Your task to perform on an android device: change alarm snooze length Image 0: 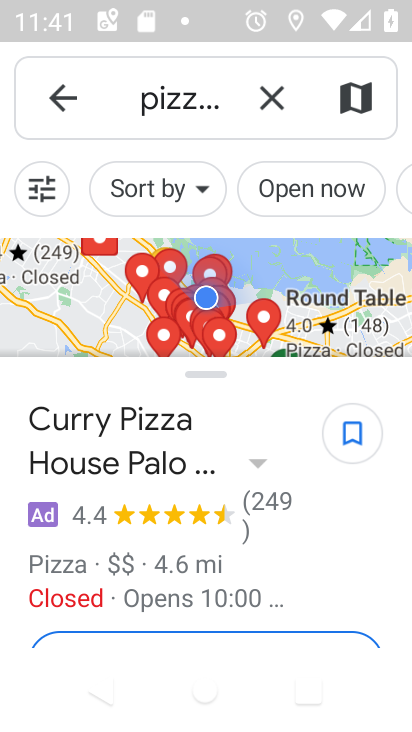
Step 0: press home button
Your task to perform on an android device: change alarm snooze length Image 1: 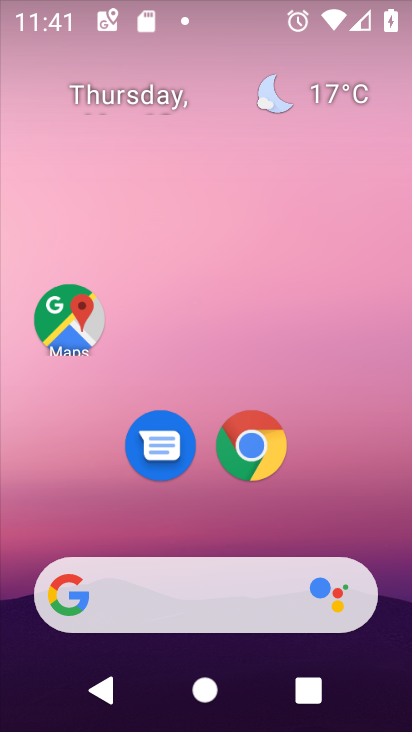
Step 1: drag from (342, 497) to (327, 176)
Your task to perform on an android device: change alarm snooze length Image 2: 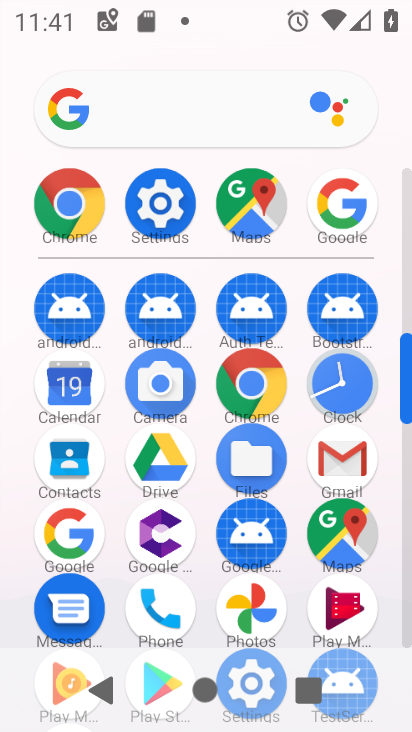
Step 2: click (355, 399)
Your task to perform on an android device: change alarm snooze length Image 3: 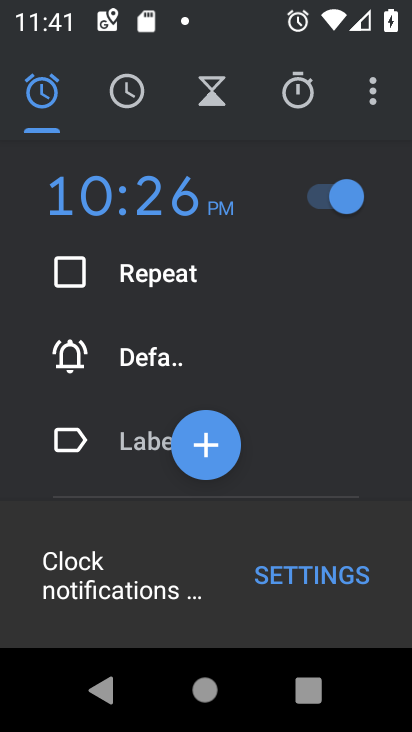
Step 3: click (388, 93)
Your task to perform on an android device: change alarm snooze length Image 4: 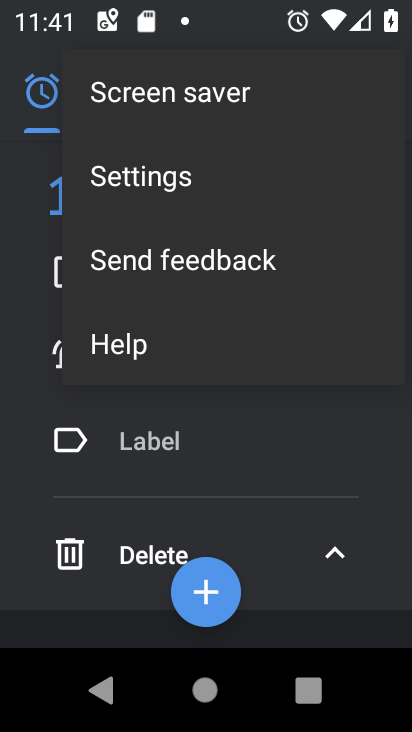
Step 4: click (199, 195)
Your task to perform on an android device: change alarm snooze length Image 5: 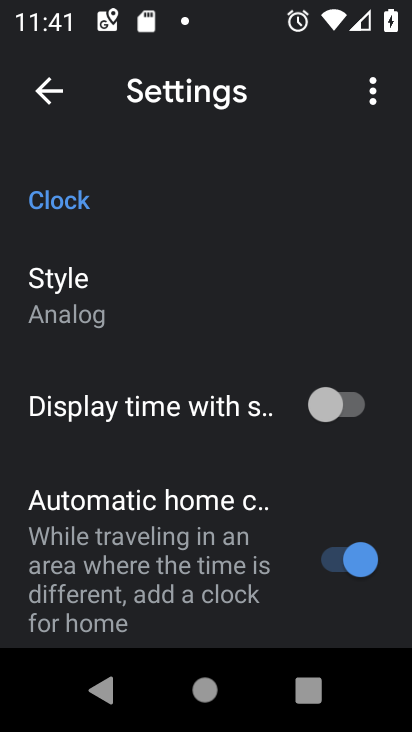
Step 5: drag from (99, 498) to (153, 210)
Your task to perform on an android device: change alarm snooze length Image 6: 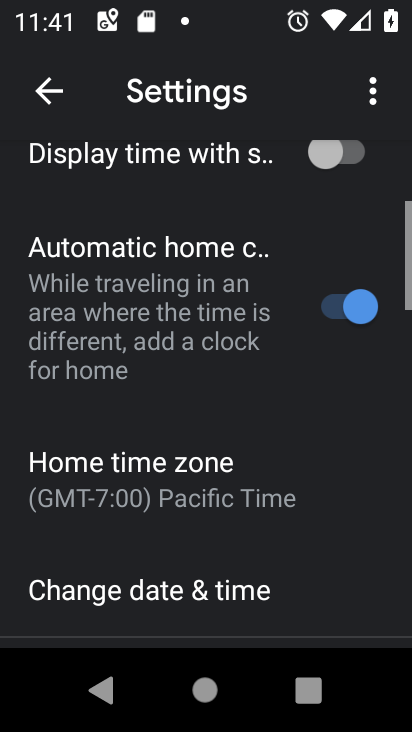
Step 6: drag from (174, 523) to (218, 190)
Your task to perform on an android device: change alarm snooze length Image 7: 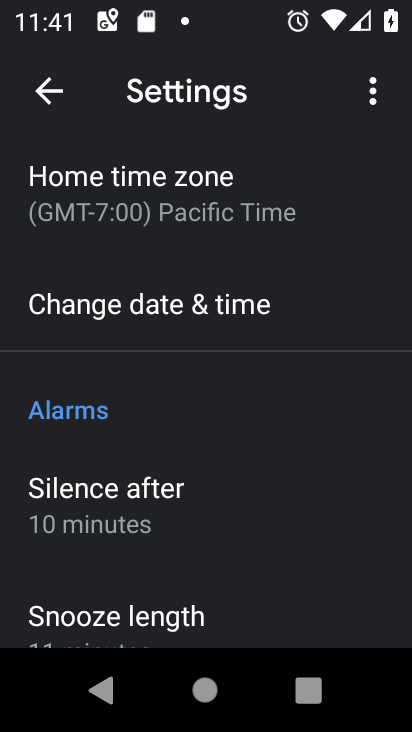
Step 7: drag from (195, 527) to (184, 382)
Your task to perform on an android device: change alarm snooze length Image 8: 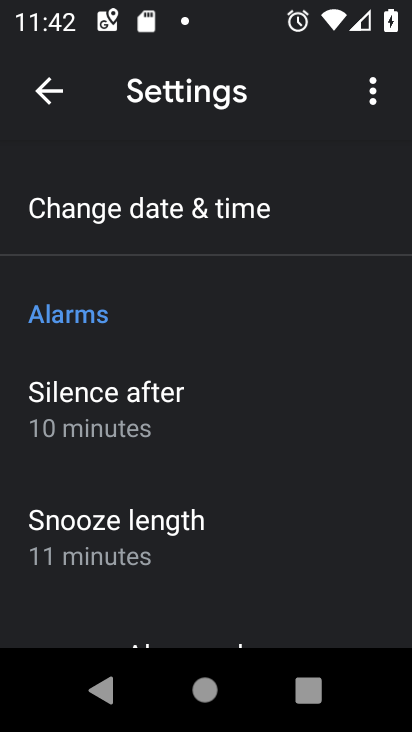
Step 8: click (158, 511)
Your task to perform on an android device: change alarm snooze length Image 9: 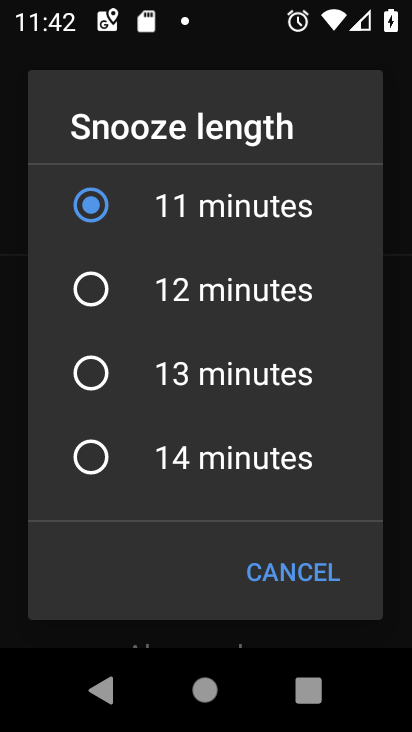
Step 9: click (177, 377)
Your task to perform on an android device: change alarm snooze length Image 10: 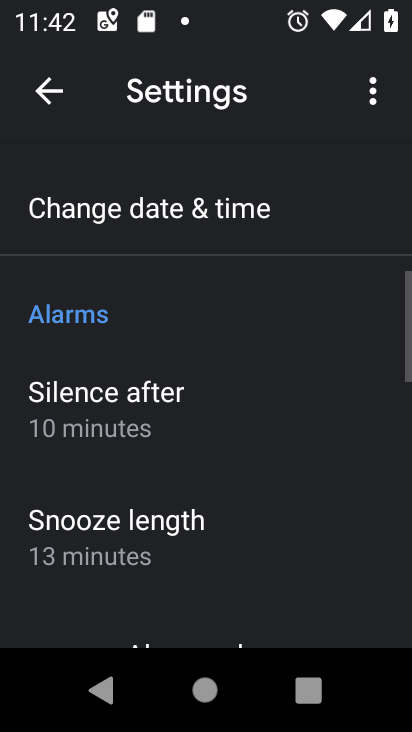
Step 10: task complete